Your task to perform on an android device: turn on wifi Image 0: 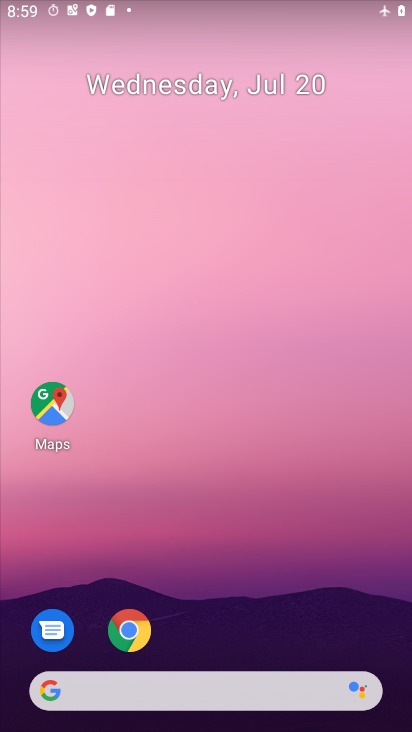
Step 0: drag from (208, 633) to (226, 134)
Your task to perform on an android device: turn on wifi Image 1: 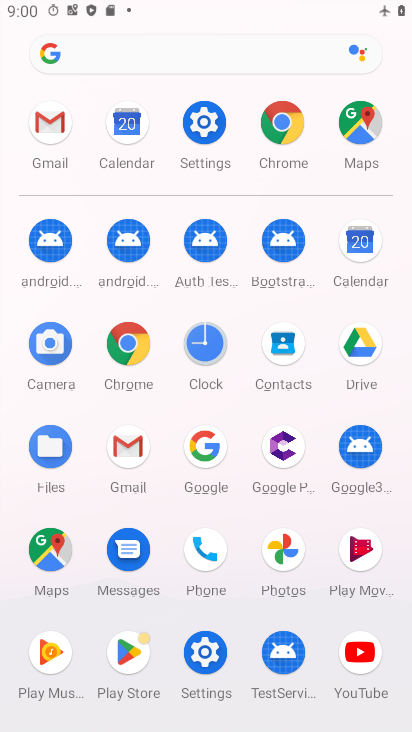
Step 1: click (210, 122)
Your task to perform on an android device: turn on wifi Image 2: 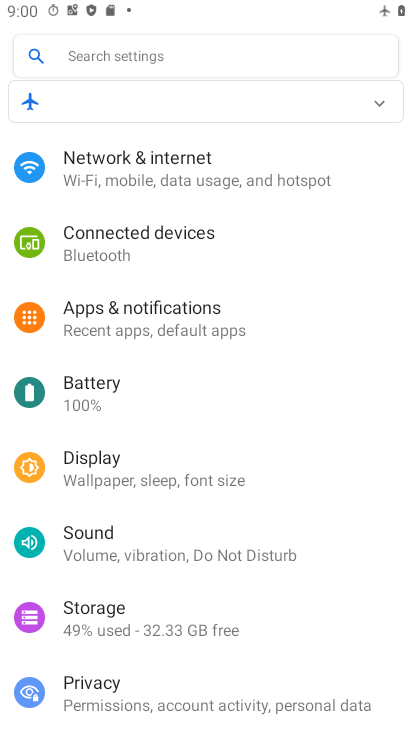
Step 2: click (212, 182)
Your task to perform on an android device: turn on wifi Image 3: 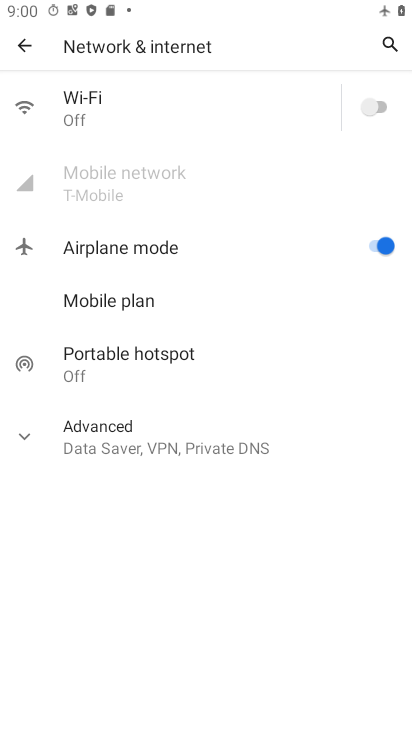
Step 3: click (379, 112)
Your task to perform on an android device: turn on wifi Image 4: 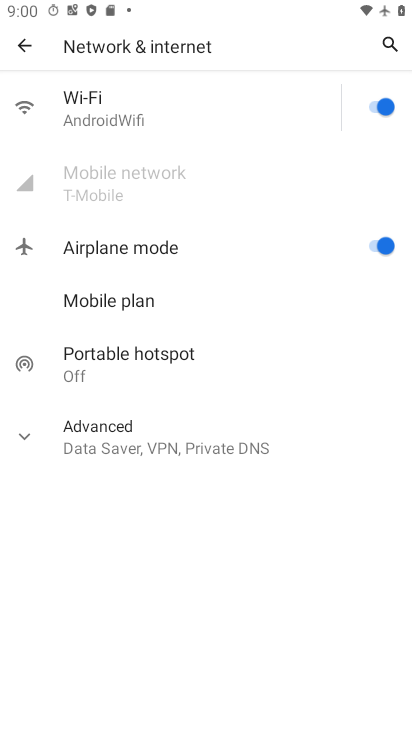
Step 4: task complete